Your task to perform on an android device: Open the calendar and show me this week's events? Image 0: 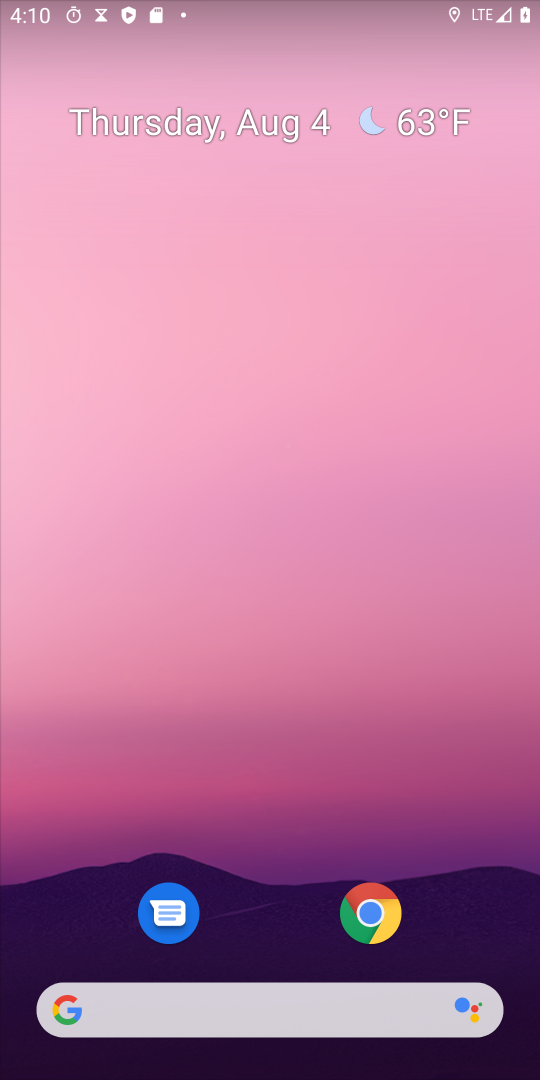
Step 0: drag from (323, 974) to (407, 111)
Your task to perform on an android device: Open the calendar and show me this week's events? Image 1: 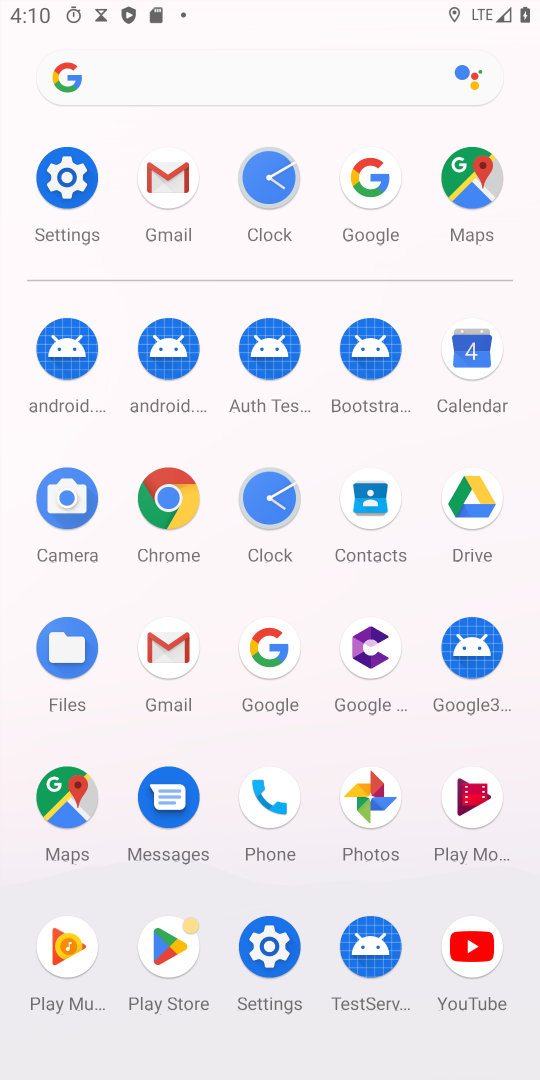
Step 1: click (463, 339)
Your task to perform on an android device: Open the calendar and show me this week's events? Image 2: 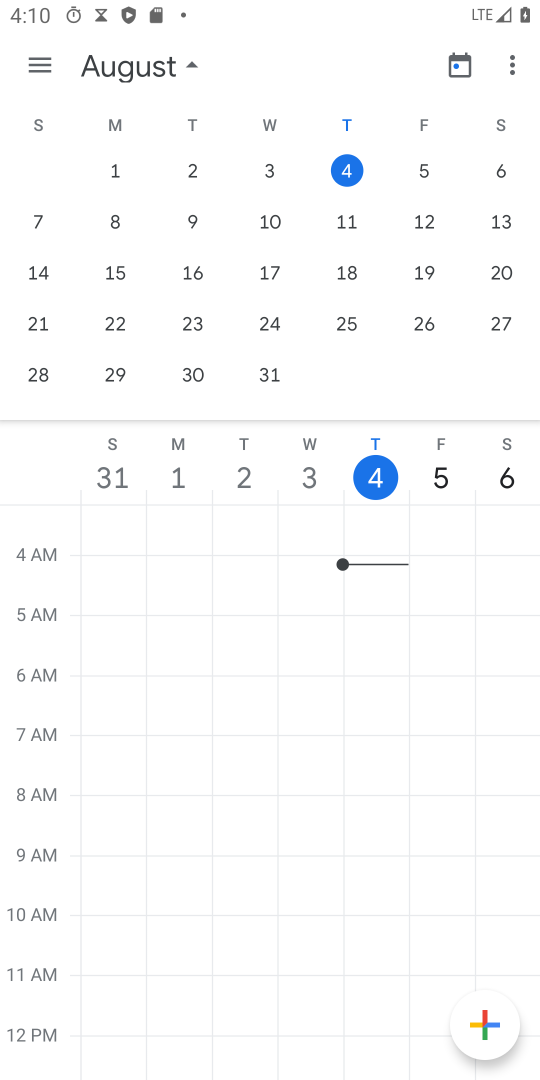
Step 2: click (349, 167)
Your task to perform on an android device: Open the calendar and show me this week's events? Image 3: 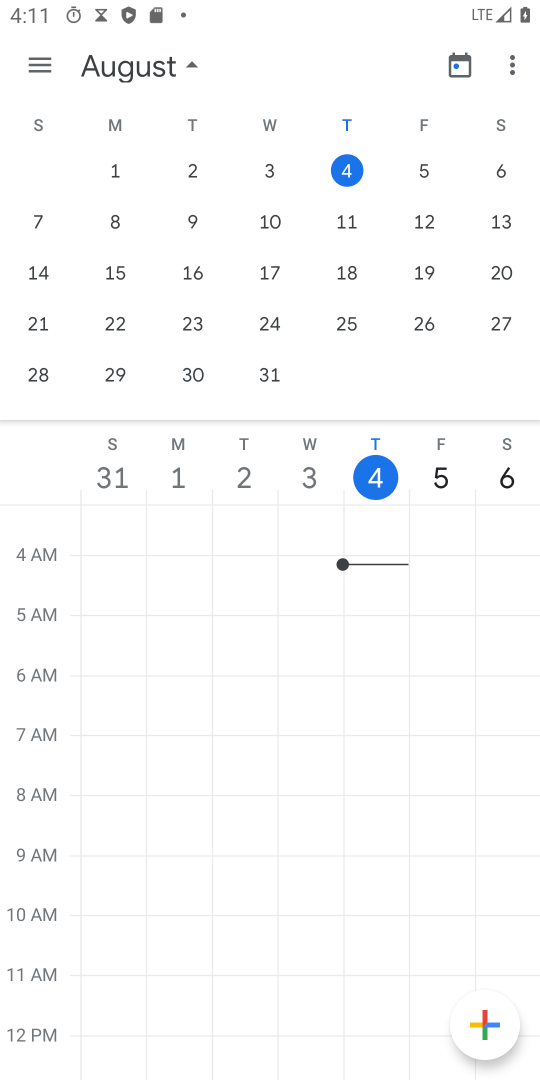
Step 3: click (36, 63)
Your task to perform on an android device: Open the calendar and show me this week's events? Image 4: 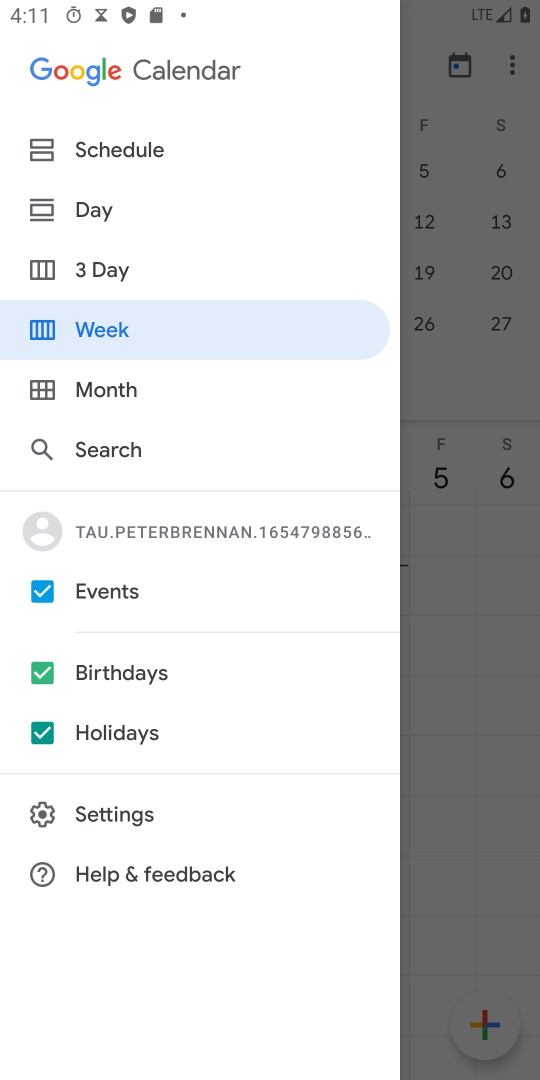
Step 4: click (105, 322)
Your task to perform on an android device: Open the calendar and show me this week's events? Image 5: 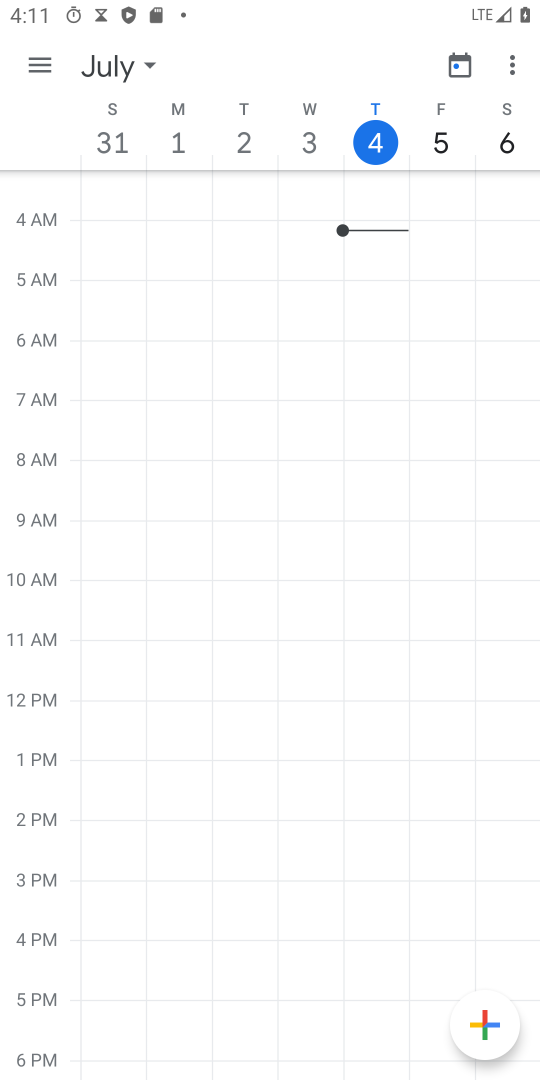
Step 5: task complete